Your task to perform on an android device: Go to internet settings Image 0: 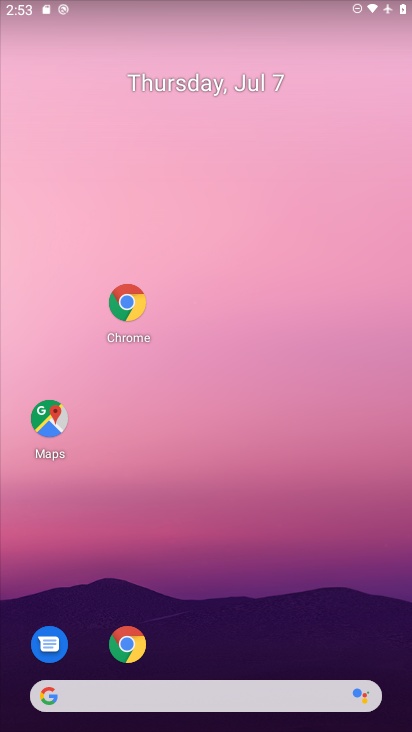
Step 0: drag from (248, 601) to (338, 5)
Your task to perform on an android device: Go to internet settings Image 1: 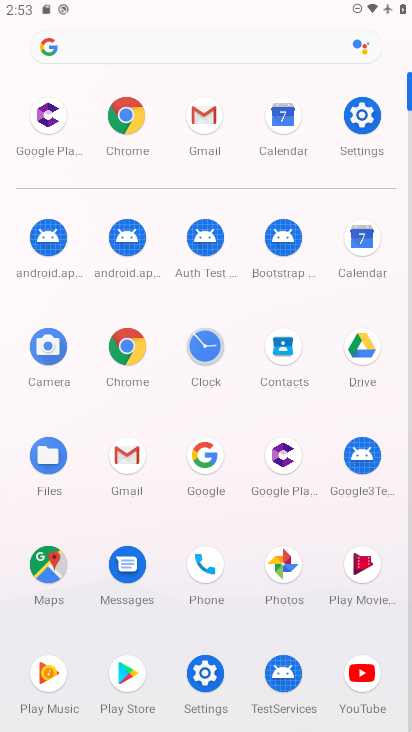
Step 1: click (371, 129)
Your task to perform on an android device: Go to internet settings Image 2: 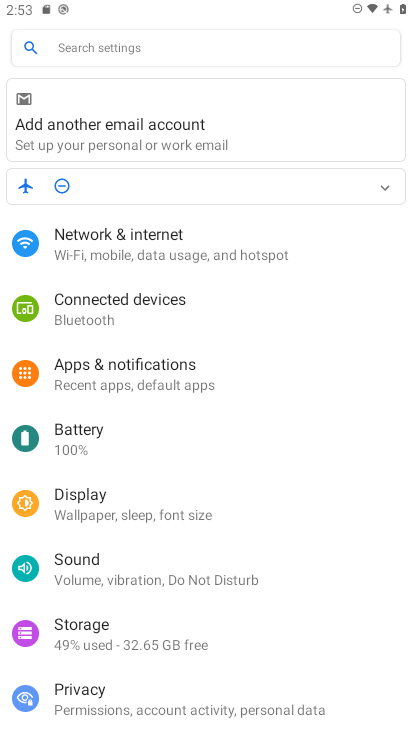
Step 2: click (205, 256)
Your task to perform on an android device: Go to internet settings Image 3: 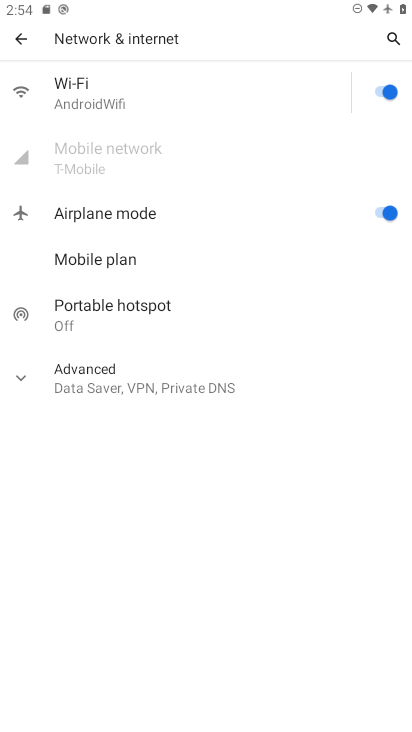
Step 3: task complete